Your task to perform on an android device: turn off javascript in the chrome app Image 0: 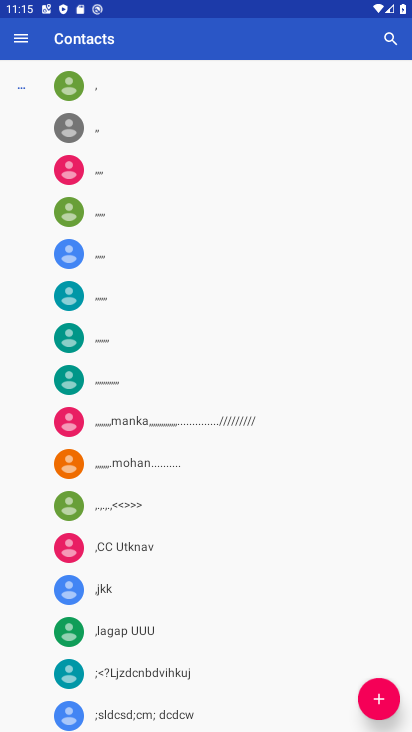
Step 0: press home button
Your task to perform on an android device: turn off javascript in the chrome app Image 1: 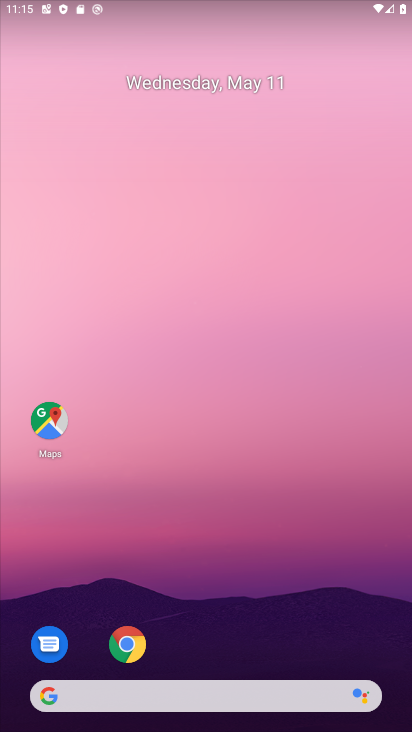
Step 1: click (124, 640)
Your task to perform on an android device: turn off javascript in the chrome app Image 2: 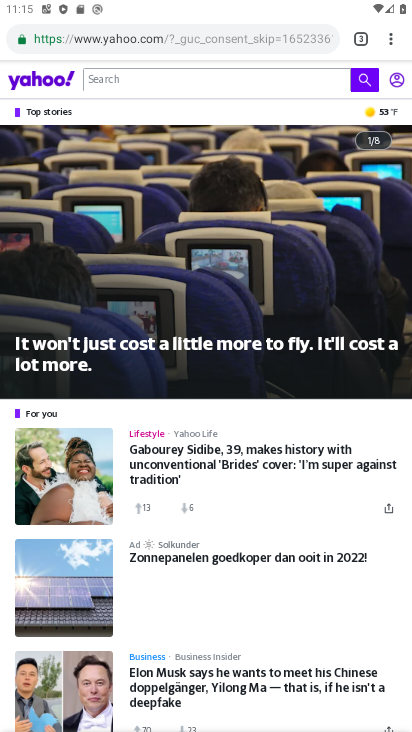
Step 2: click (359, 36)
Your task to perform on an android device: turn off javascript in the chrome app Image 3: 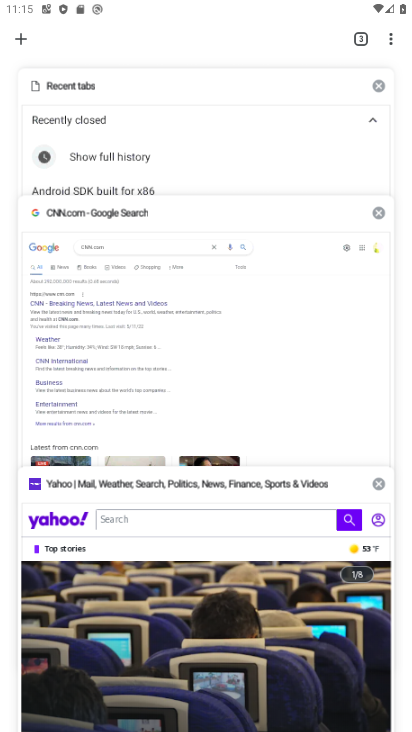
Step 3: click (387, 40)
Your task to perform on an android device: turn off javascript in the chrome app Image 4: 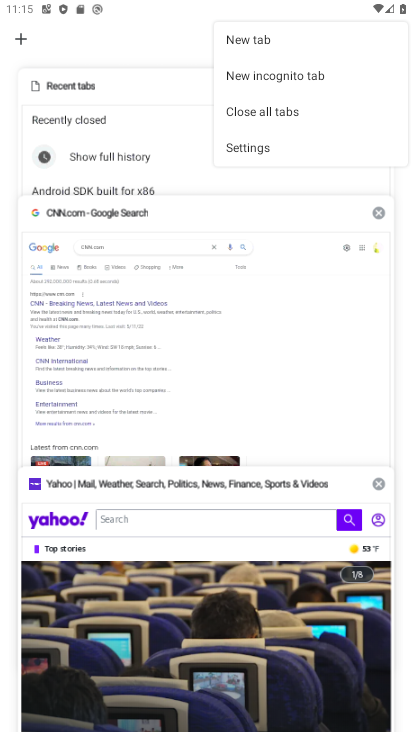
Step 4: click (280, 151)
Your task to perform on an android device: turn off javascript in the chrome app Image 5: 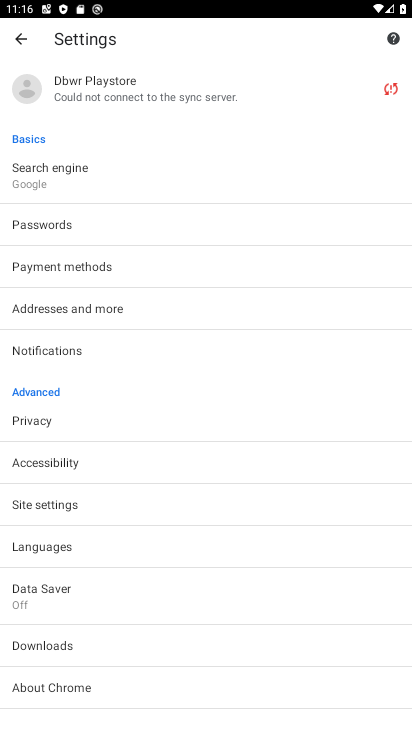
Step 5: click (127, 505)
Your task to perform on an android device: turn off javascript in the chrome app Image 6: 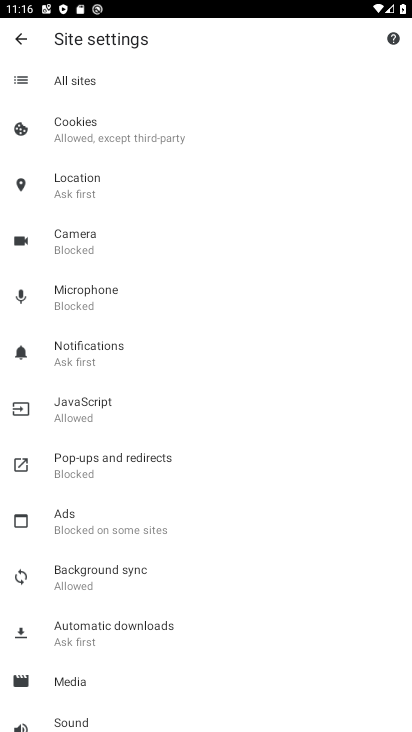
Step 6: click (158, 423)
Your task to perform on an android device: turn off javascript in the chrome app Image 7: 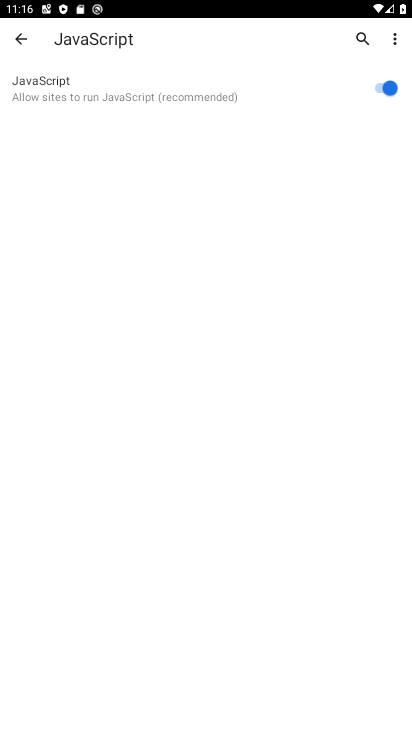
Step 7: click (383, 89)
Your task to perform on an android device: turn off javascript in the chrome app Image 8: 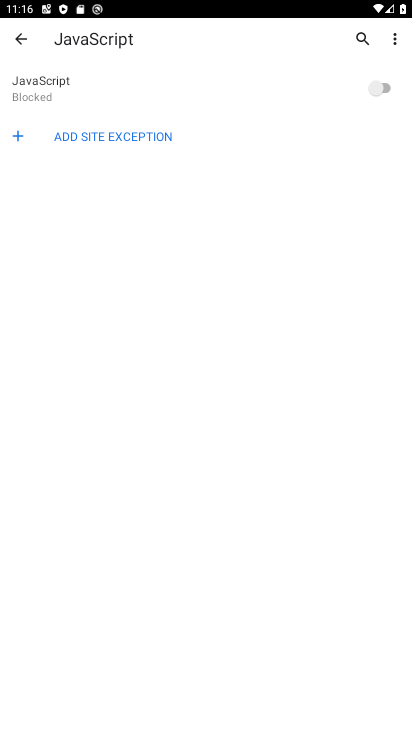
Step 8: task complete